Your task to perform on an android device: install app "Mercado Libre" Image 0: 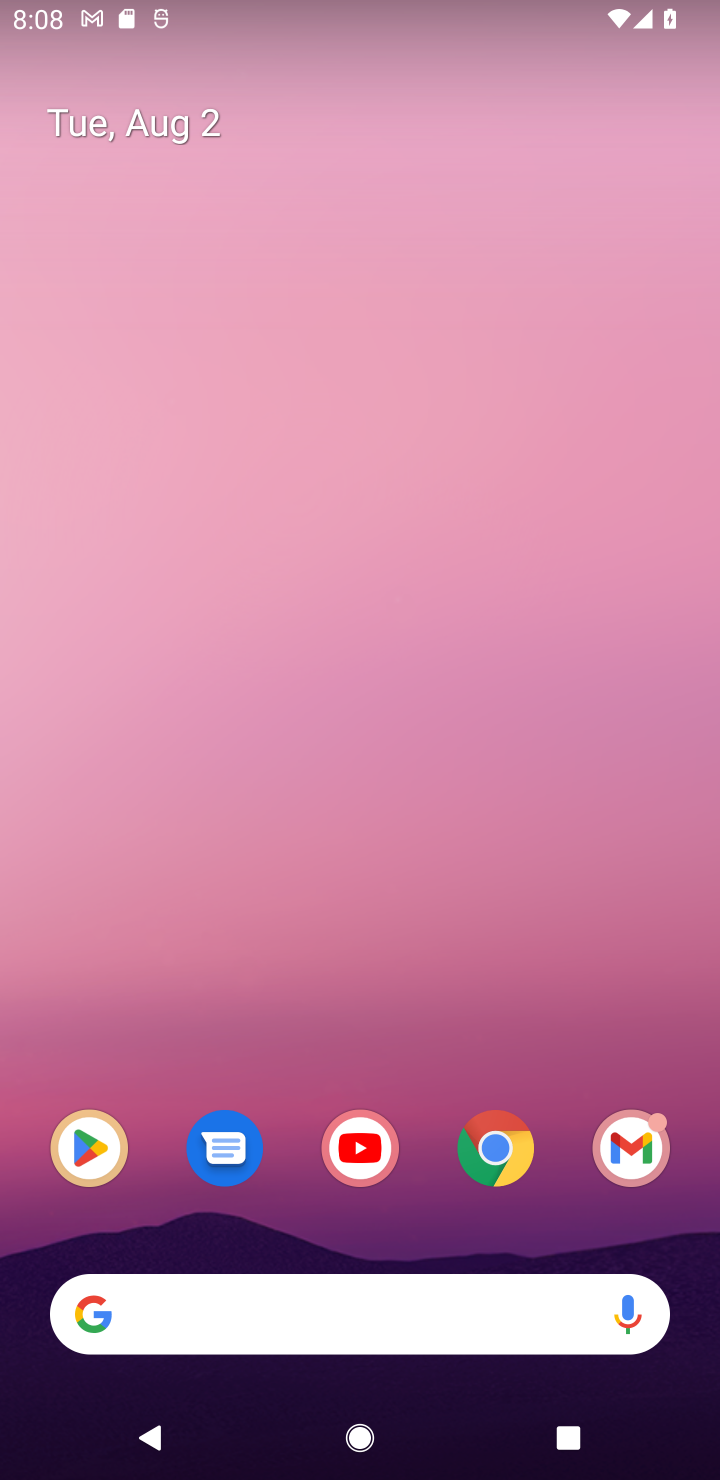
Step 0: drag from (554, 1030) to (214, 48)
Your task to perform on an android device: install app "Mercado Libre" Image 1: 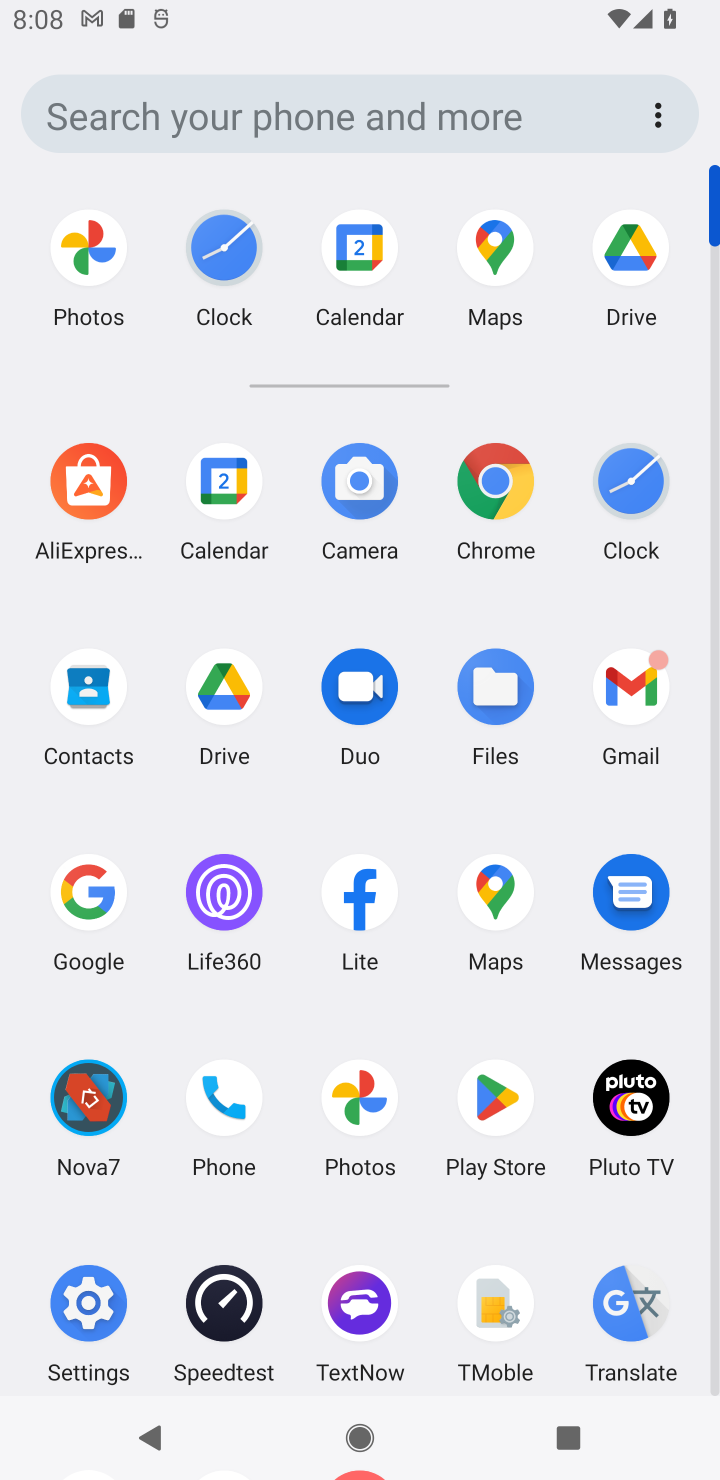
Step 1: click (496, 1091)
Your task to perform on an android device: install app "Mercado Libre" Image 2: 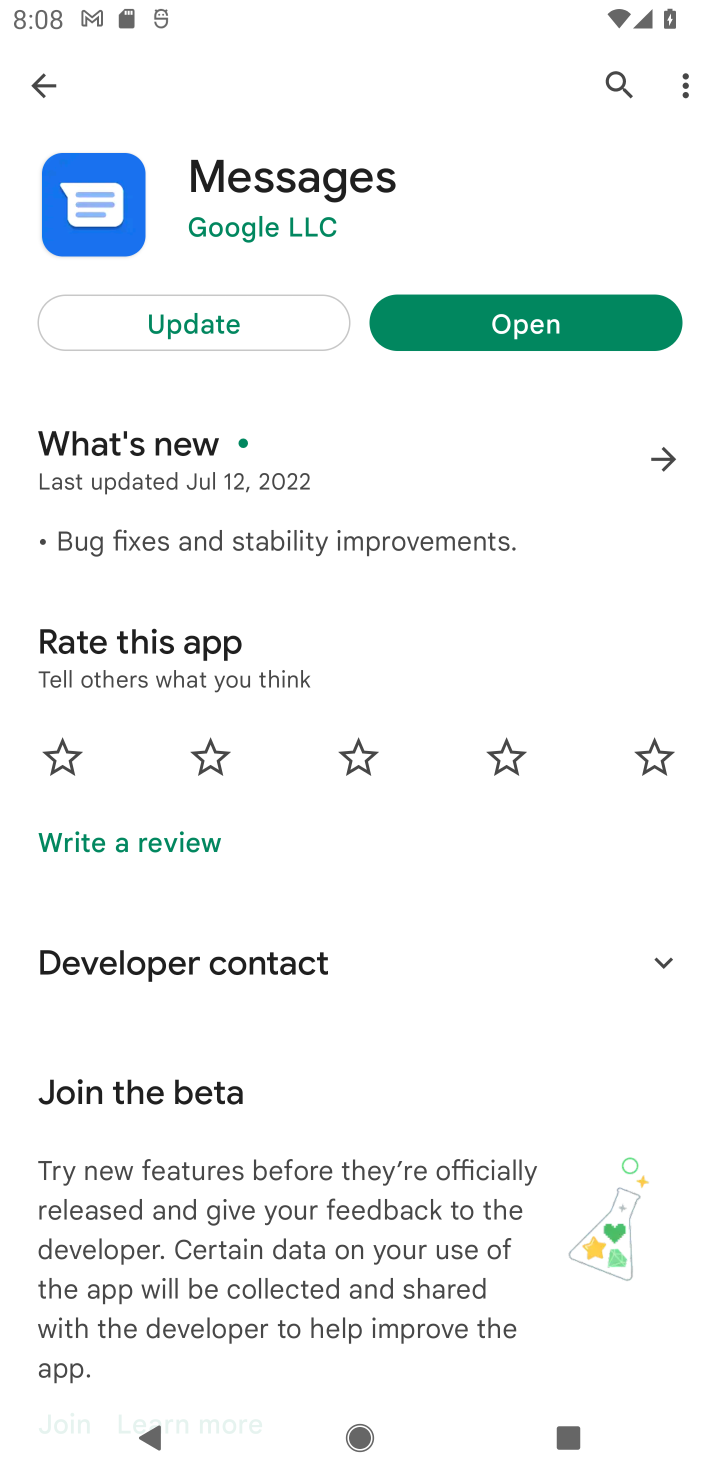
Step 2: press back button
Your task to perform on an android device: install app "Mercado Libre" Image 3: 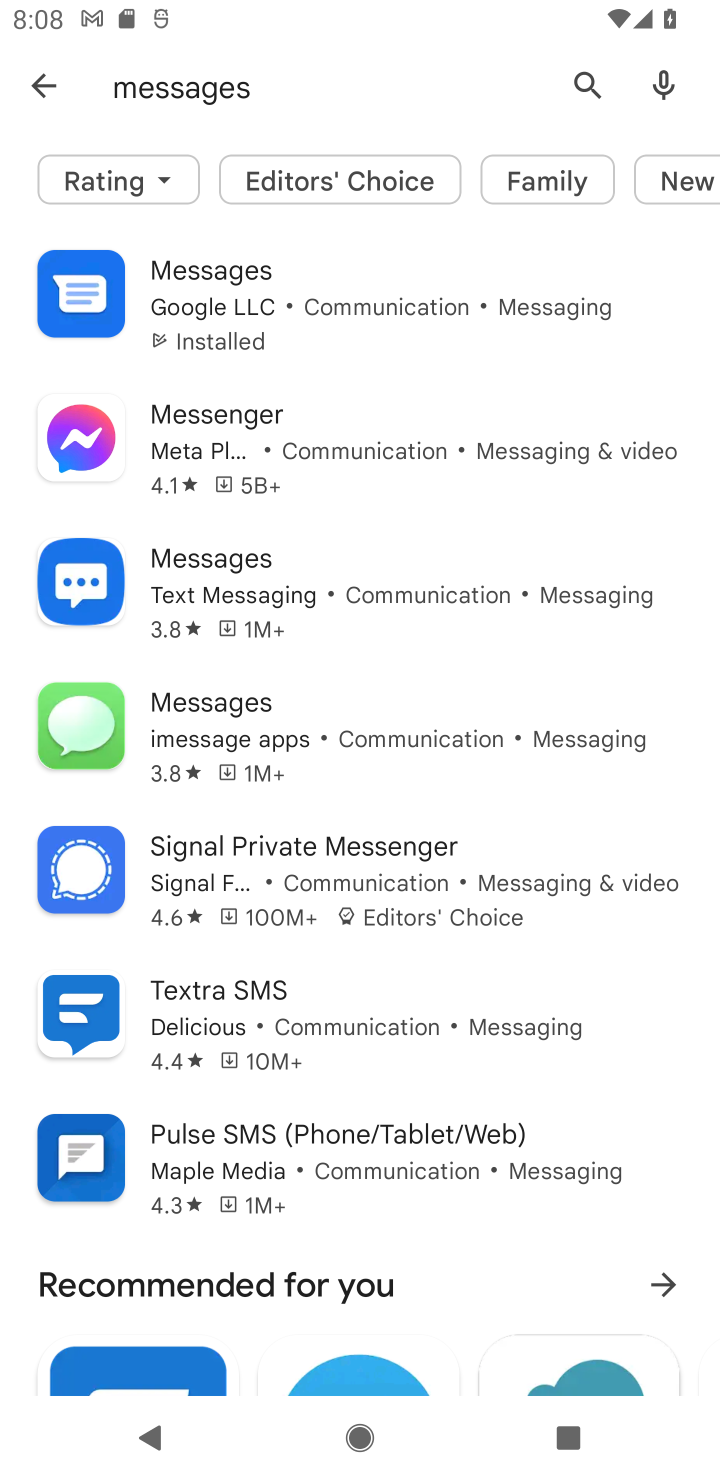
Step 3: press back button
Your task to perform on an android device: install app "Mercado Libre" Image 4: 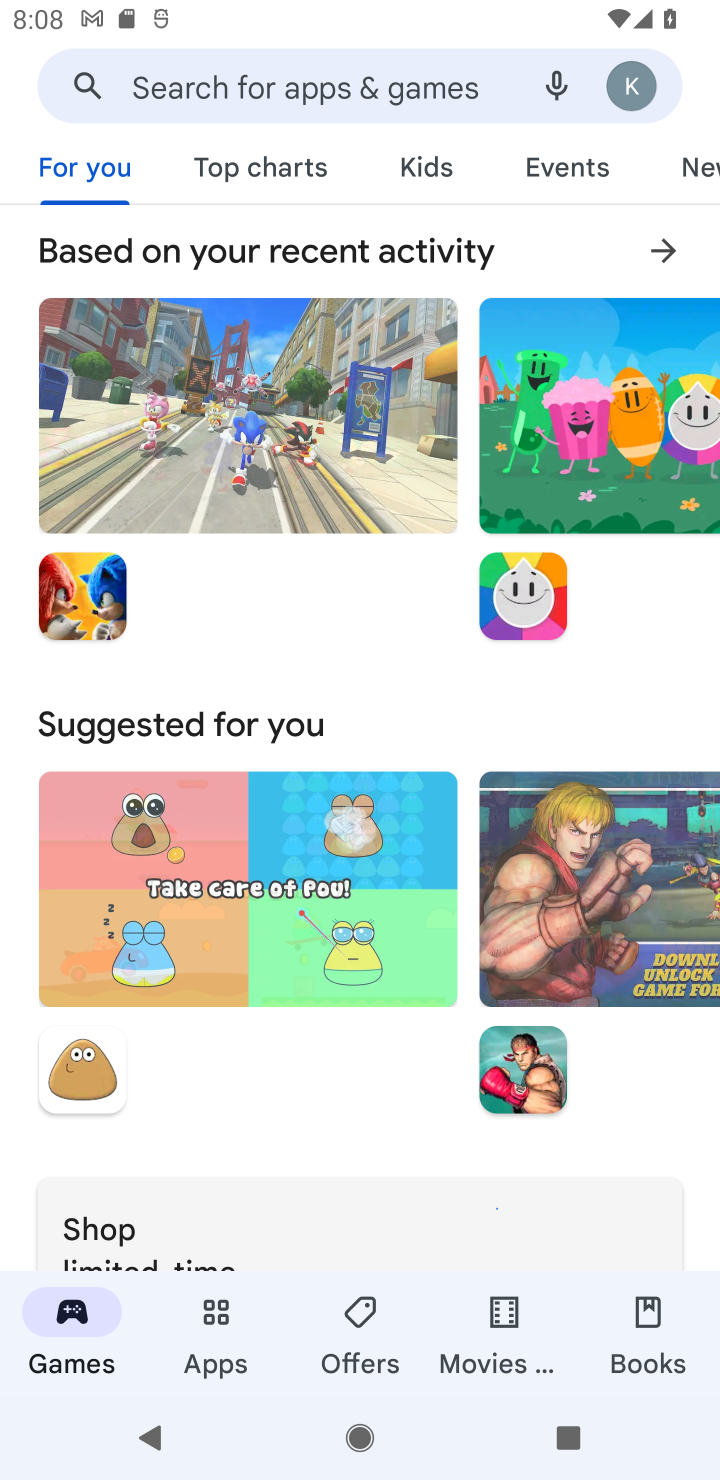
Step 4: click (185, 100)
Your task to perform on an android device: install app "Mercado Libre" Image 5: 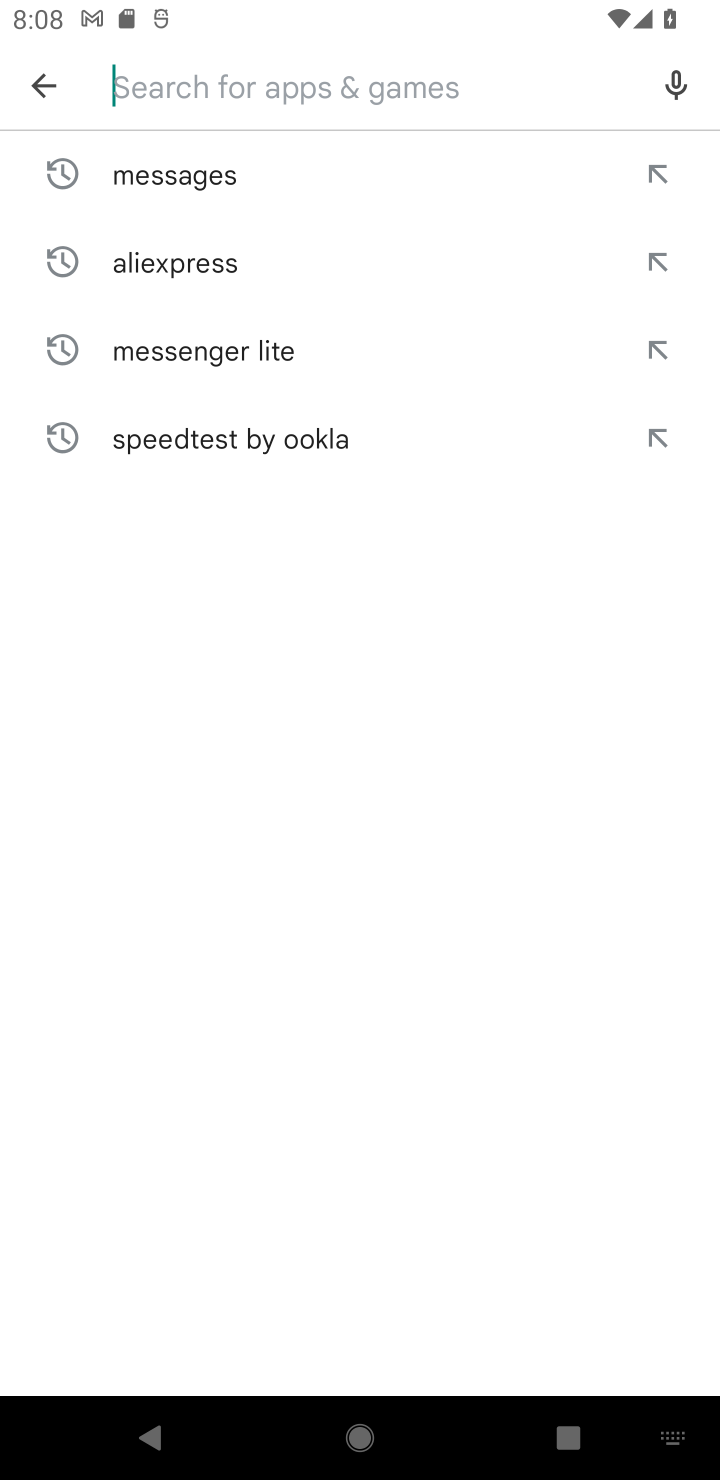
Step 5: type "Mercado Libre"
Your task to perform on an android device: install app "Mercado Libre" Image 6: 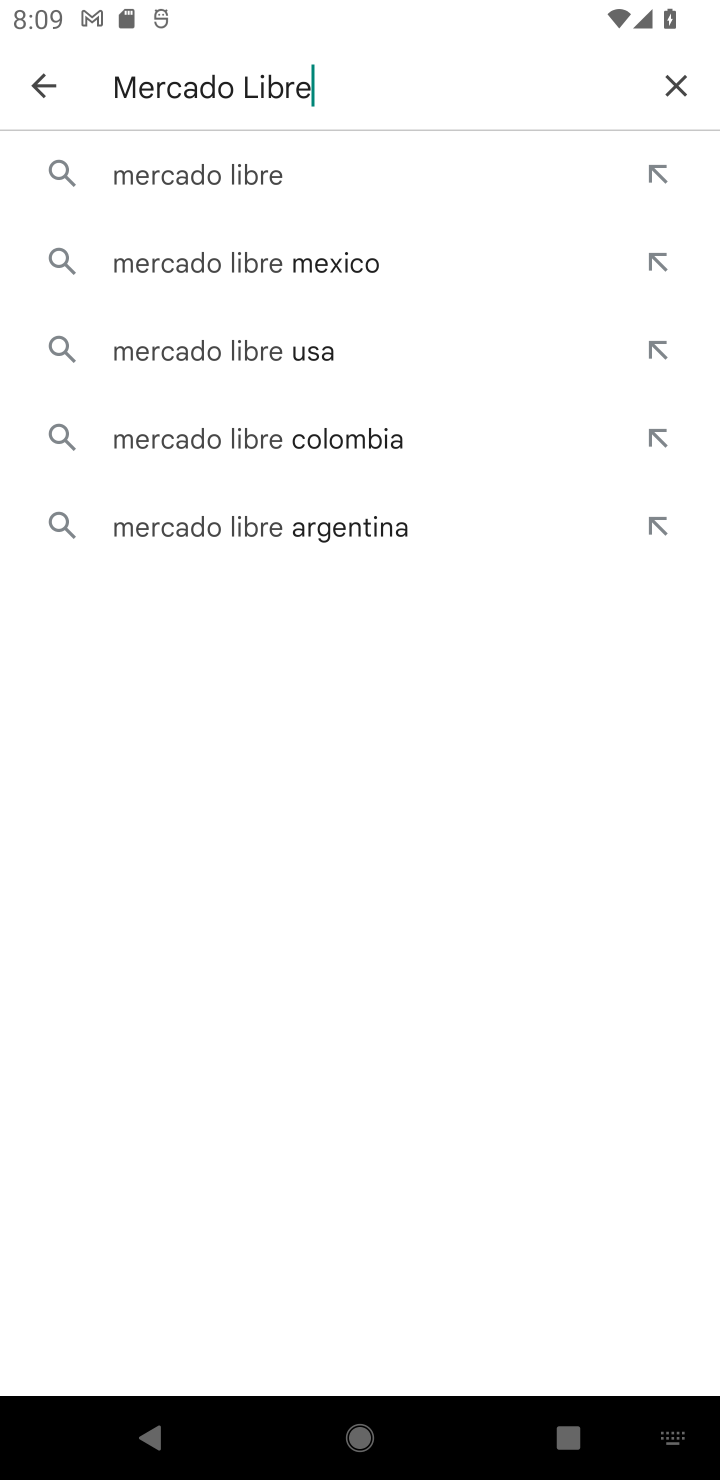
Step 6: click (166, 178)
Your task to perform on an android device: install app "Mercado Libre" Image 7: 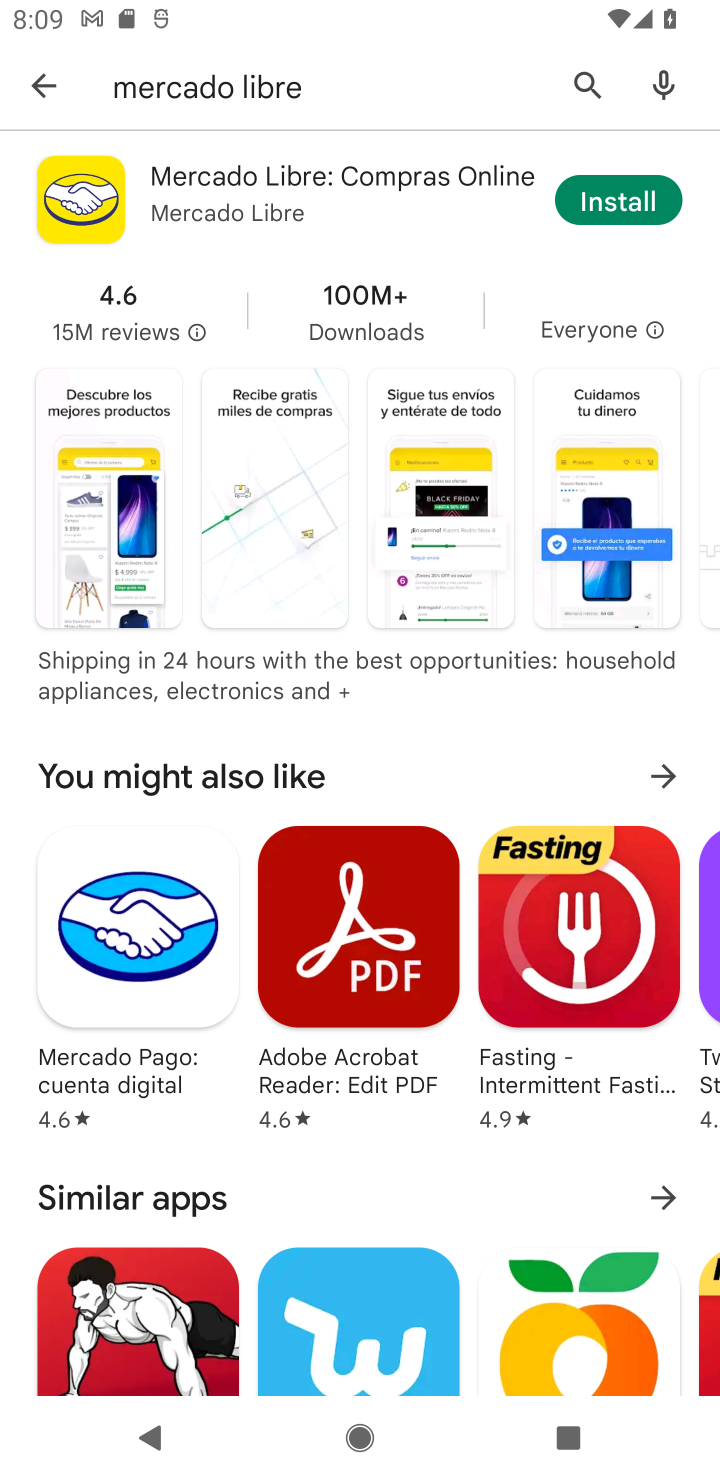
Step 7: click (613, 197)
Your task to perform on an android device: install app "Mercado Libre" Image 8: 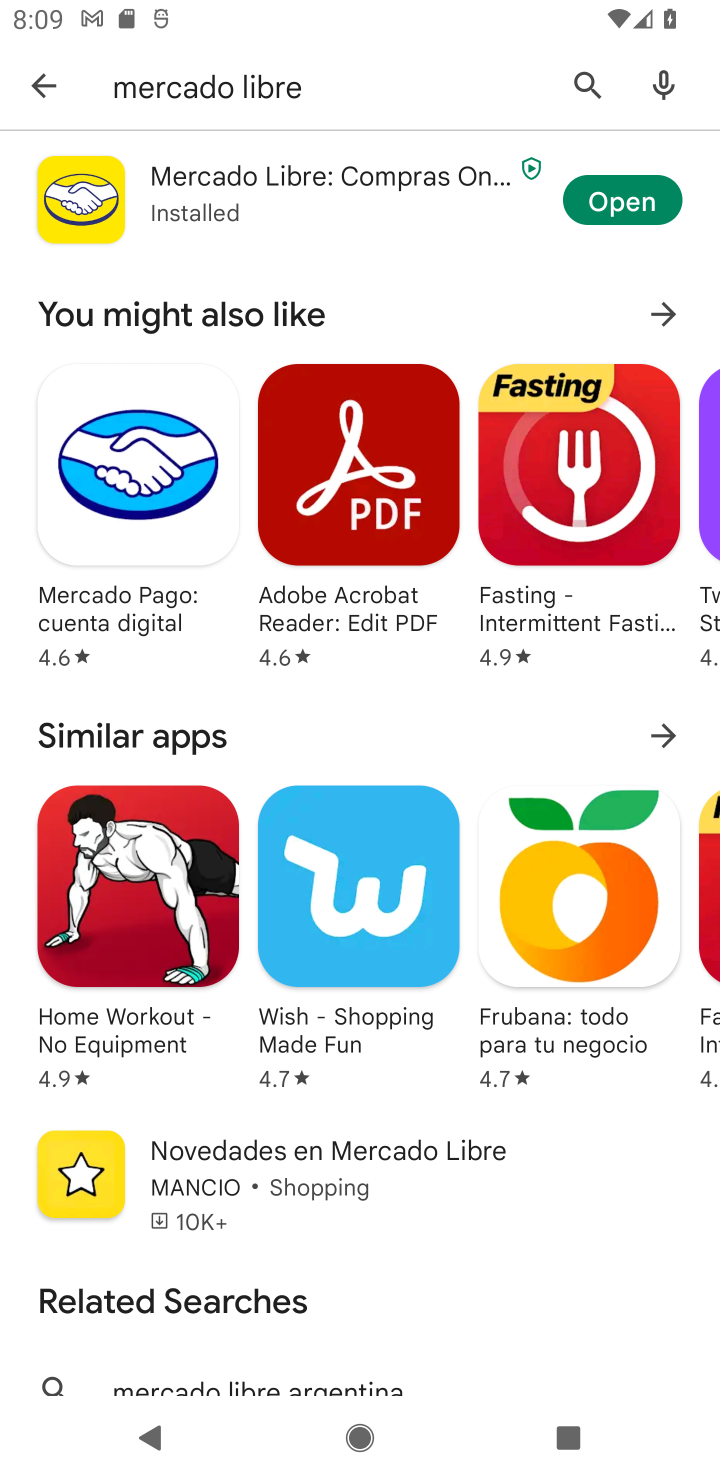
Step 8: task complete